Your task to perform on an android device: Search for sushi restaurants on Maps Image 0: 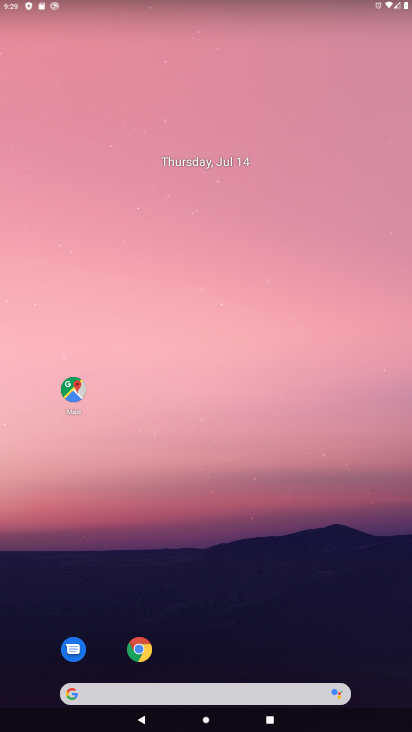
Step 0: click (72, 395)
Your task to perform on an android device: Search for sushi restaurants on Maps Image 1: 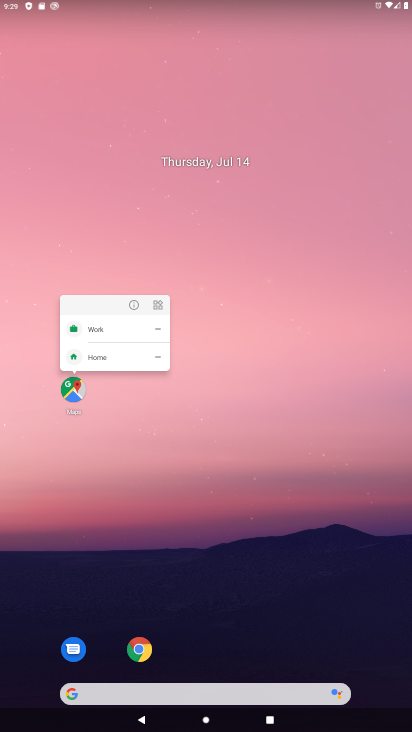
Step 1: click (72, 395)
Your task to perform on an android device: Search for sushi restaurants on Maps Image 2: 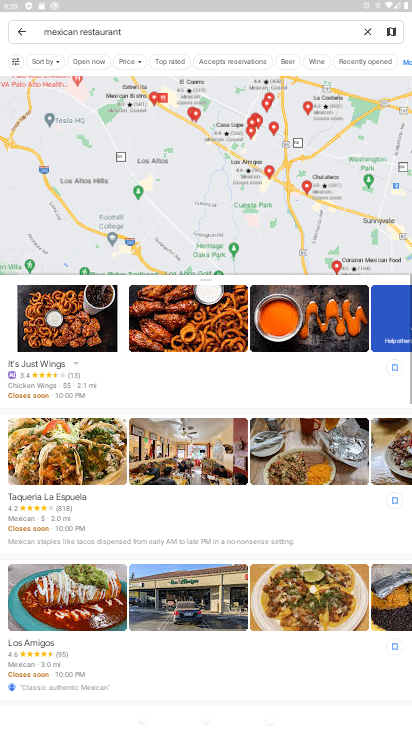
Step 2: click (371, 30)
Your task to perform on an android device: Search for sushi restaurants on Maps Image 3: 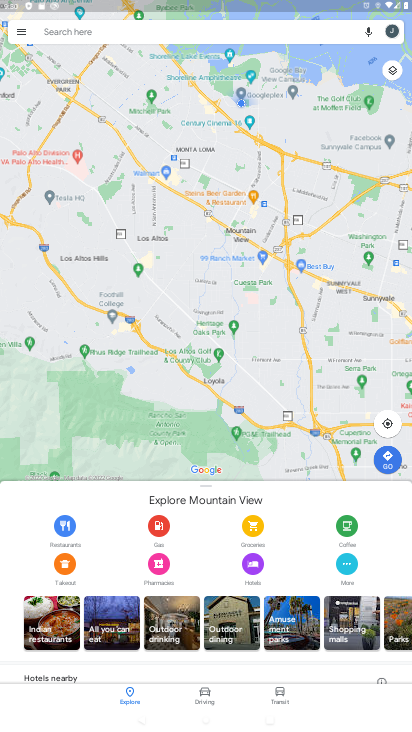
Step 3: type "sushi res"
Your task to perform on an android device: Search for sushi restaurants on Maps Image 4: 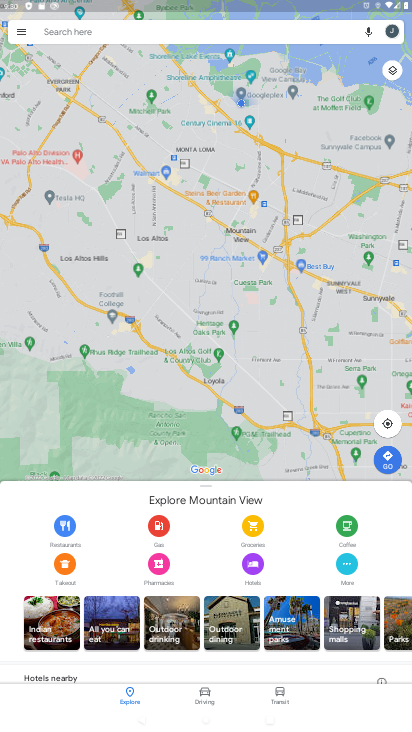
Step 4: click (242, 22)
Your task to perform on an android device: Search for sushi restaurants on Maps Image 5: 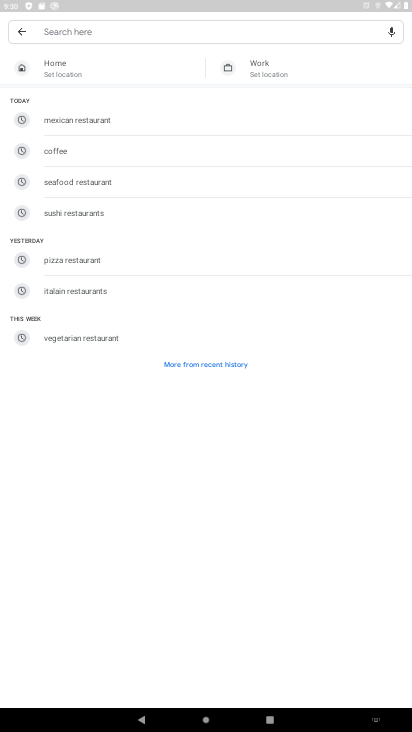
Step 5: click (125, 212)
Your task to perform on an android device: Search for sushi restaurants on Maps Image 6: 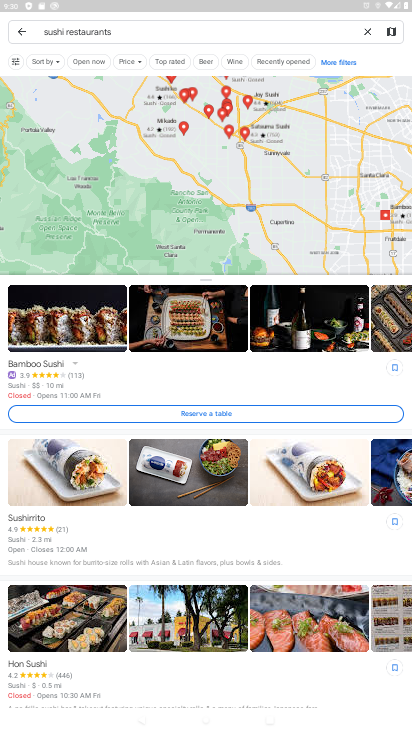
Step 6: task complete